Your task to perform on an android device: Open internet settings Image 0: 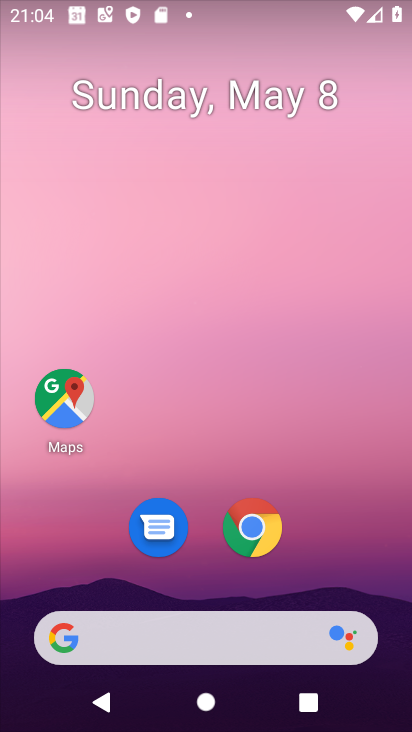
Step 0: press home button
Your task to perform on an android device: Open internet settings Image 1: 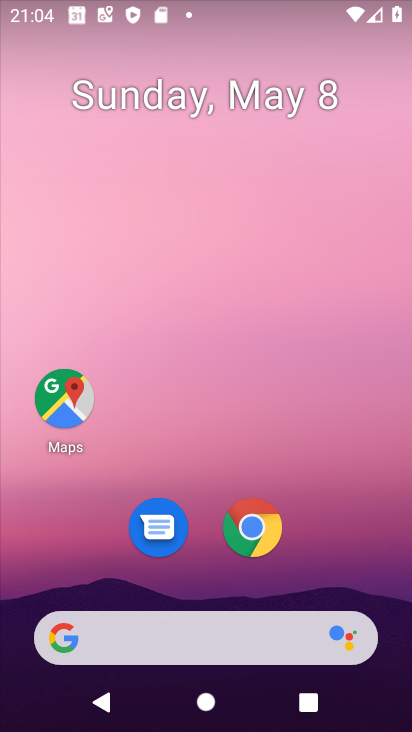
Step 1: drag from (215, 566) to (183, 55)
Your task to perform on an android device: Open internet settings Image 2: 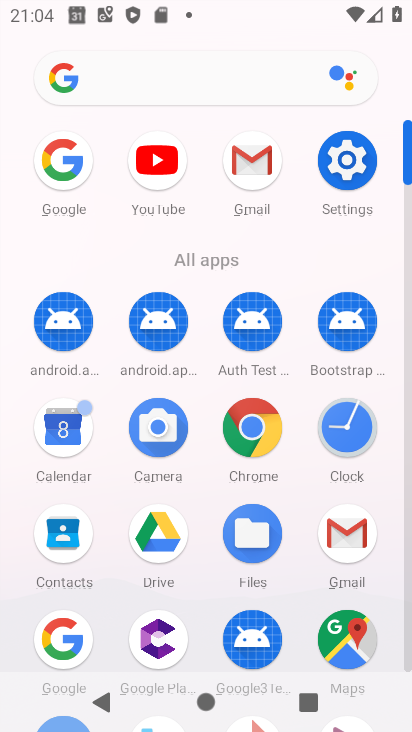
Step 2: click (347, 155)
Your task to perform on an android device: Open internet settings Image 3: 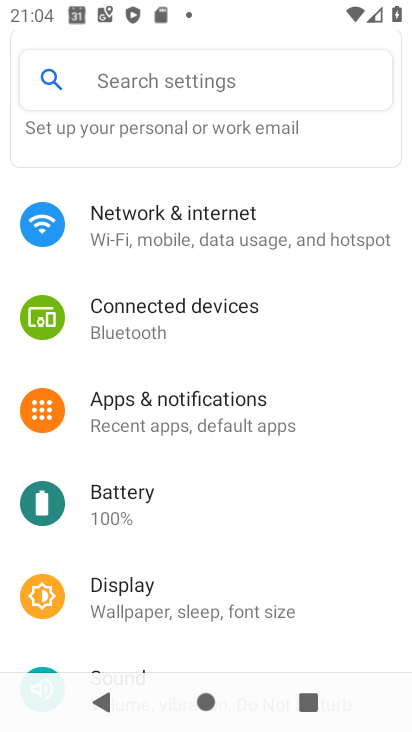
Step 3: drag from (181, 152) to (196, 344)
Your task to perform on an android device: Open internet settings Image 4: 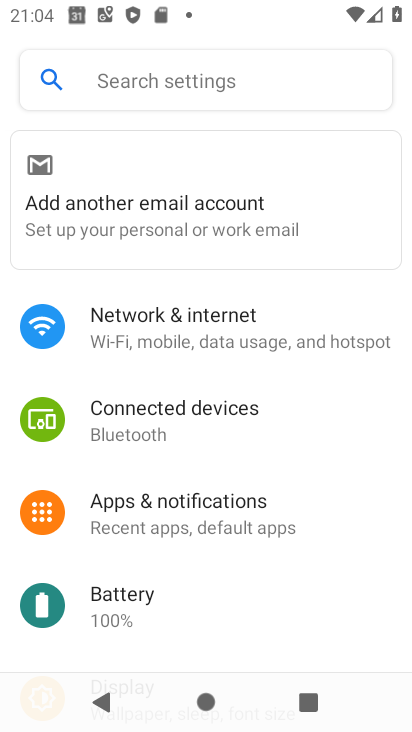
Step 4: click (166, 322)
Your task to perform on an android device: Open internet settings Image 5: 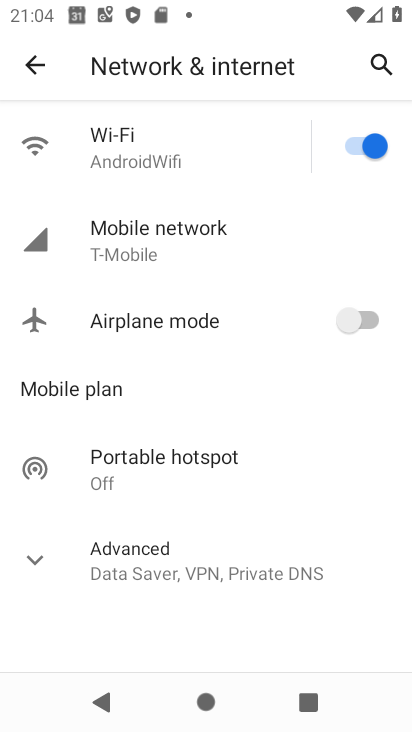
Step 5: click (162, 146)
Your task to perform on an android device: Open internet settings Image 6: 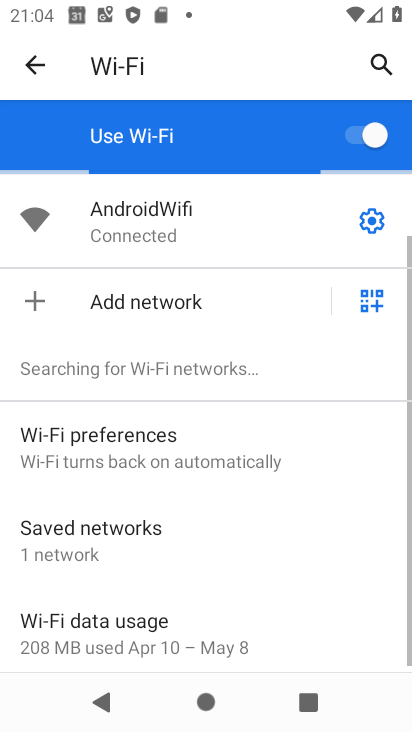
Step 6: click (182, 225)
Your task to perform on an android device: Open internet settings Image 7: 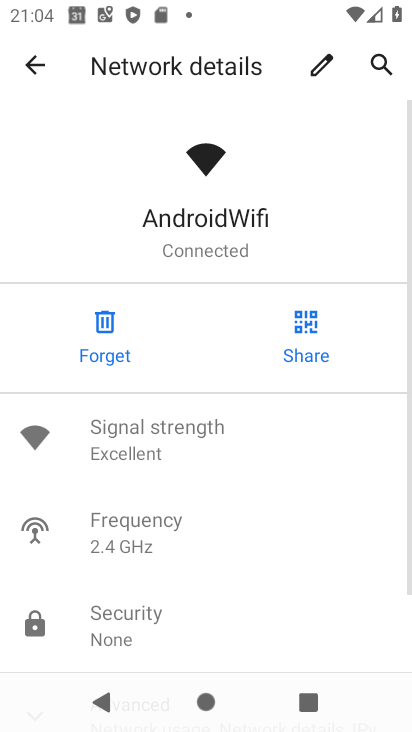
Step 7: task complete